Your task to perform on an android device: Search for Italian restaurants on Maps Image 0: 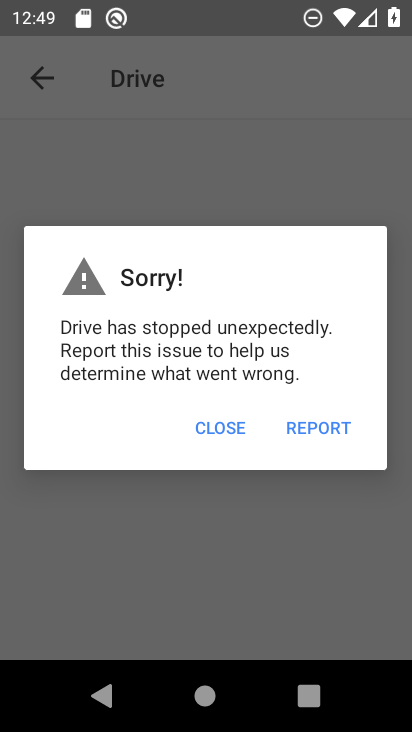
Step 0: press home button
Your task to perform on an android device: Search for Italian restaurants on Maps Image 1: 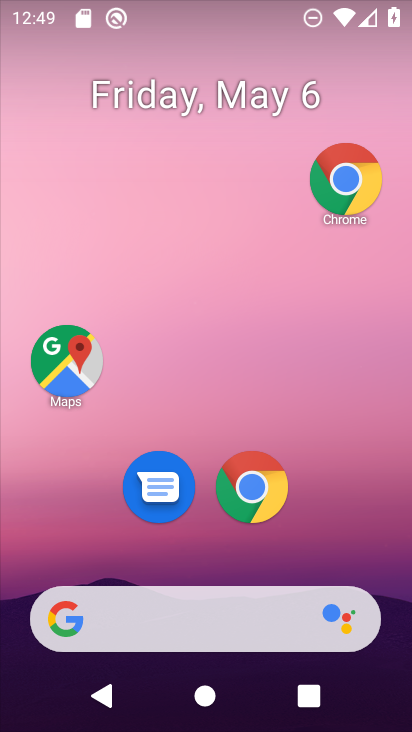
Step 1: click (77, 372)
Your task to perform on an android device: Search for Italian restaurants on Maps Image 2: 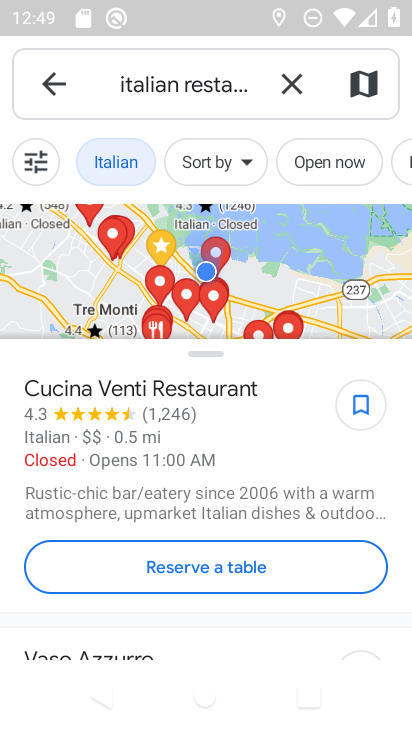
Step 2: task complete